Your task to perform on an android device: Open notification settings Image 0: 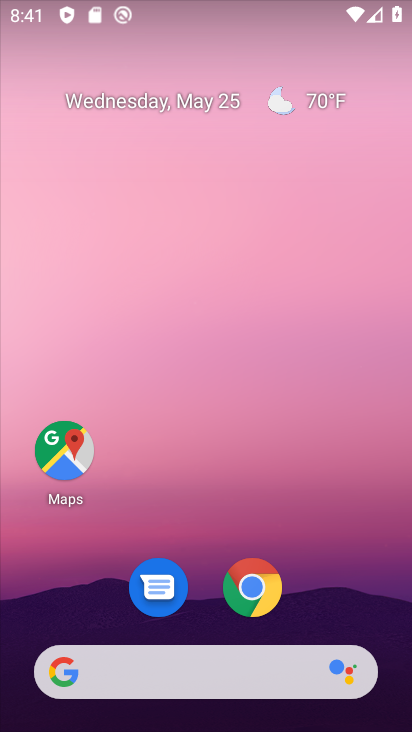
Step 0: drag from (201, 599) to (297, 0)
Your task to perform on an android device: Open notification settings Image 1: 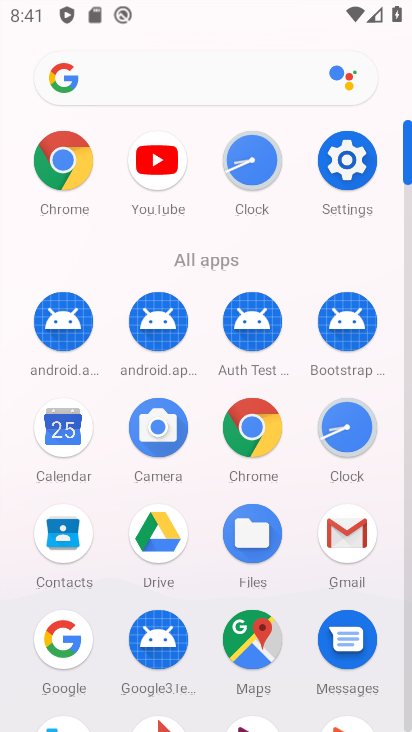
Step 1: click (348, 151)
Your task to perform on an android device: Open notification settings Image 2: 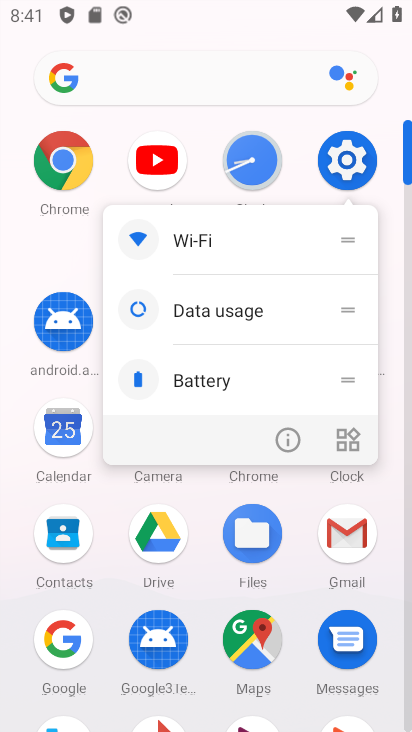
Step 2: click (344, 158)
Your task to perform on an android device: Open notification settings Image 3: 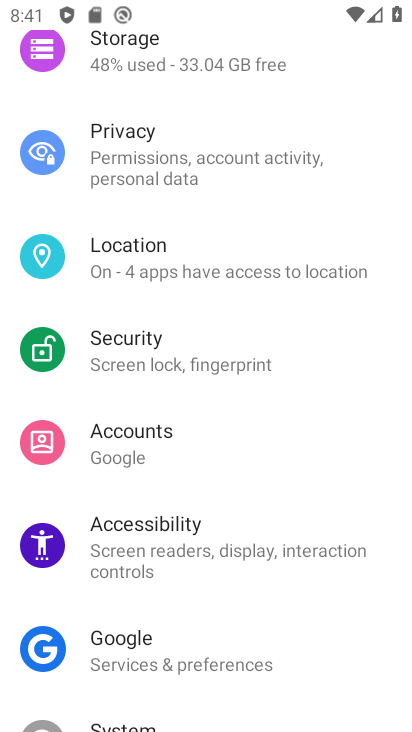
Step 3: drag from (199, 226) to (174, 701)
Your task to perform on an android device: Open notification settings Image 4: 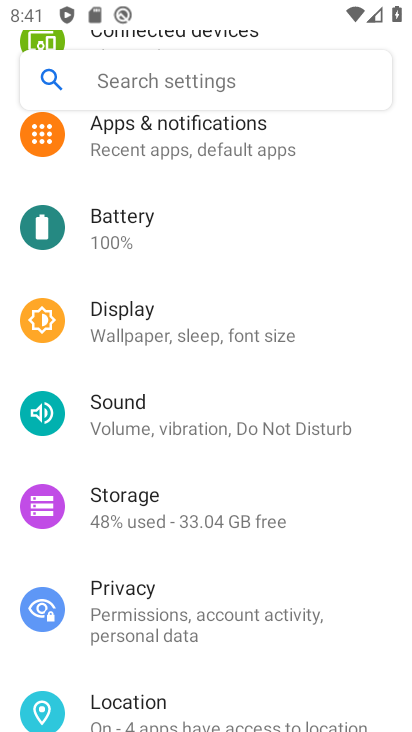
Step 4: drag from (230, 224) to (235, 465)
Your task to perform on an android device: Open notification settings Image 5: 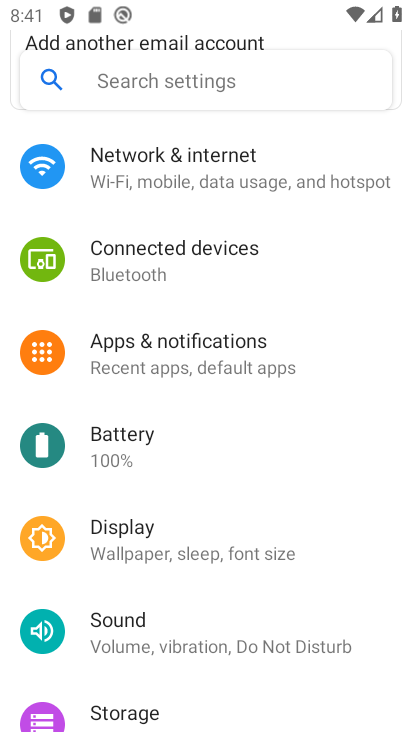
Step 5: click (218, 356)
Your task to perform on an android device: Open notification settings Image 6: 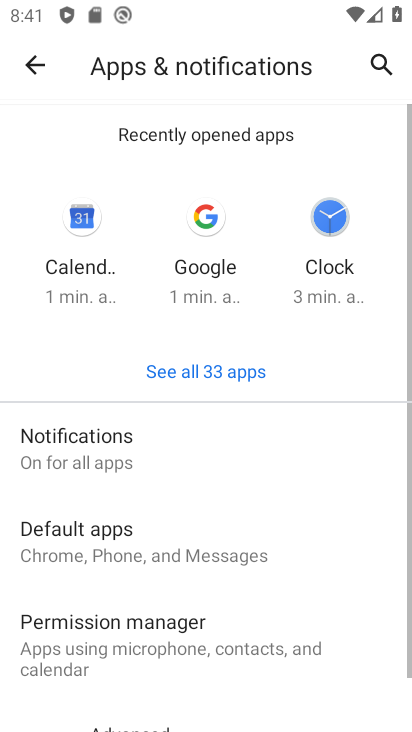
Step 6: click (141, 457)
Your task to perform on an android device: Open notification settings Image 7: 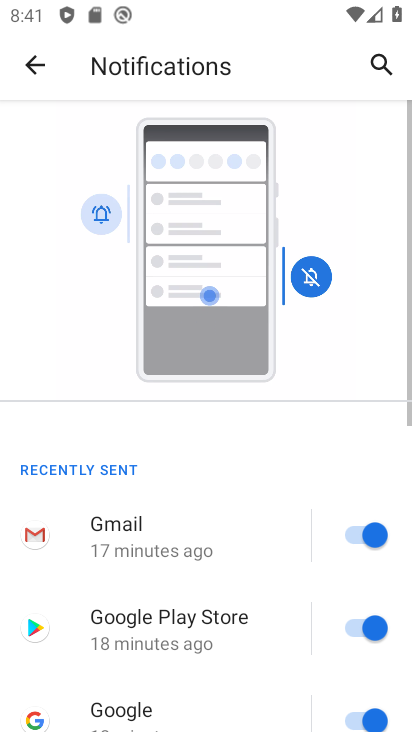
Step 7: task complete